Your task to perform on an android device: refresh tabs in the chrome app Image 0: 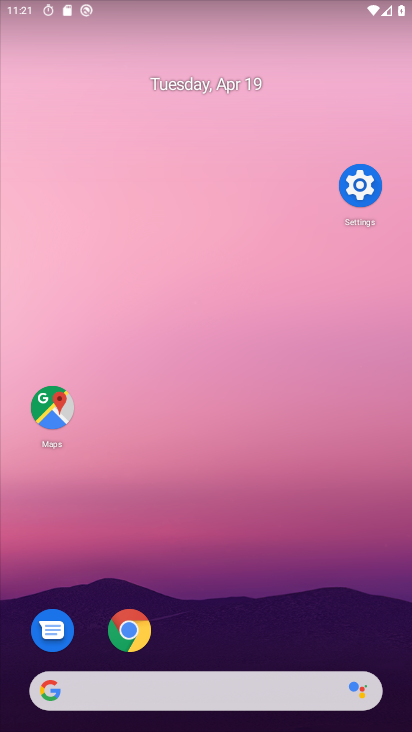
Step 0: click (144, 632)
Your task to perform on an android device: refresh tabs in the chrome app Image 1: 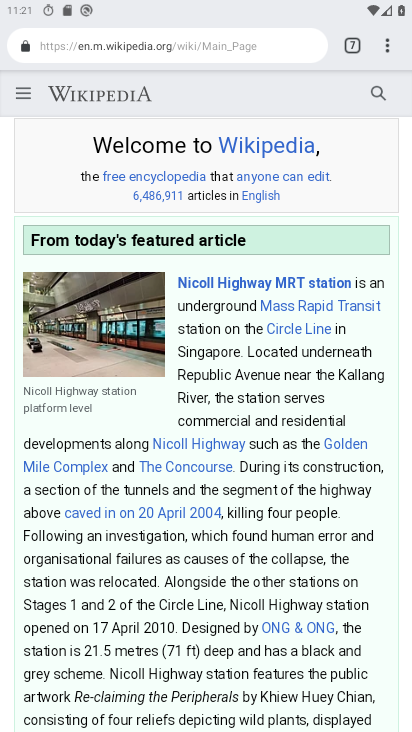
Step 1: click (393, 47)
Your task to perform on an android device: refresh tabs in the chrome app Image 2: 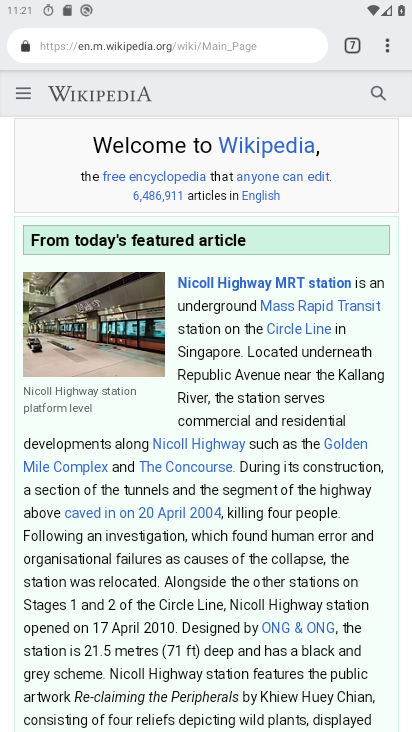
Step 2: task complete